Your task to perform on an android device: Turn on the flashlight Image 0: 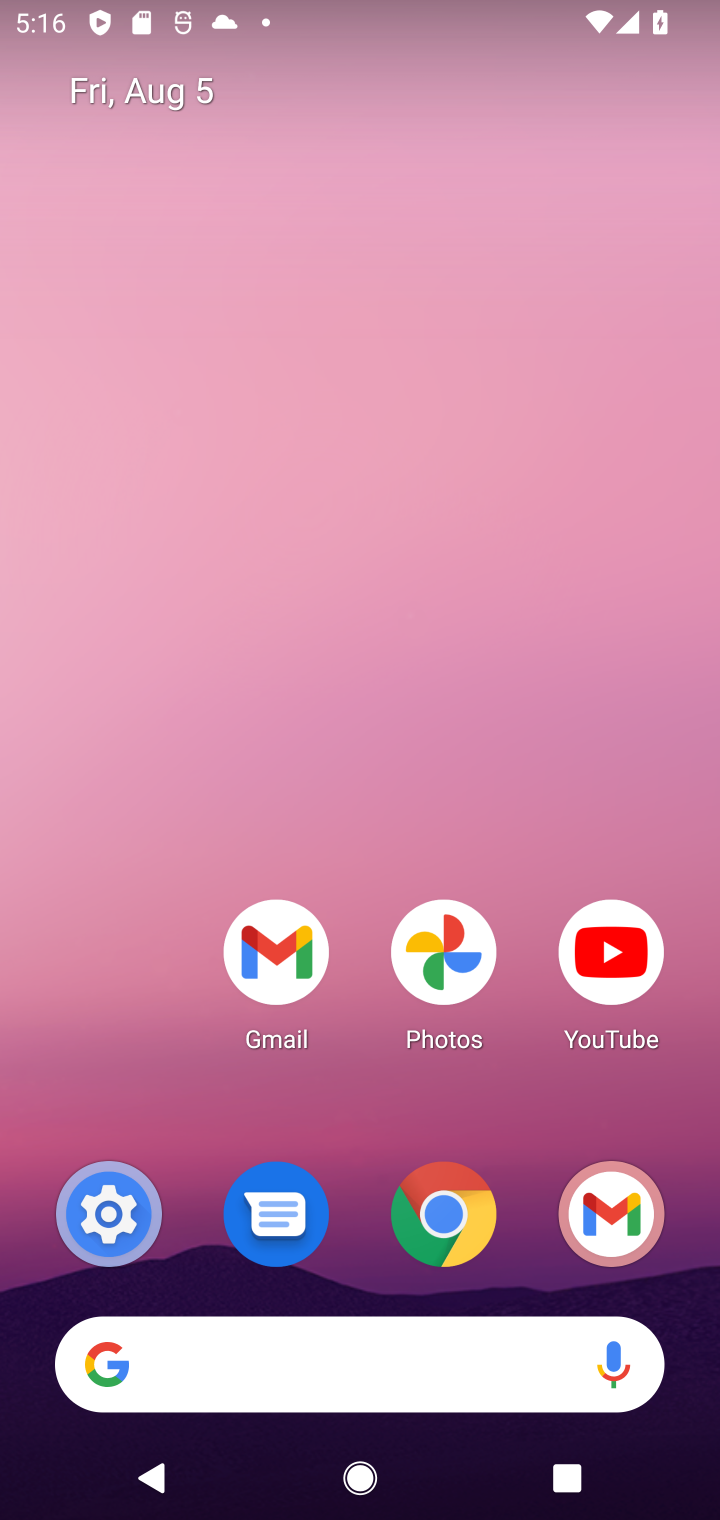
Step 0: click (104, 1220)
Your task to perform on an android device: Turn on the flashlight Image 1: 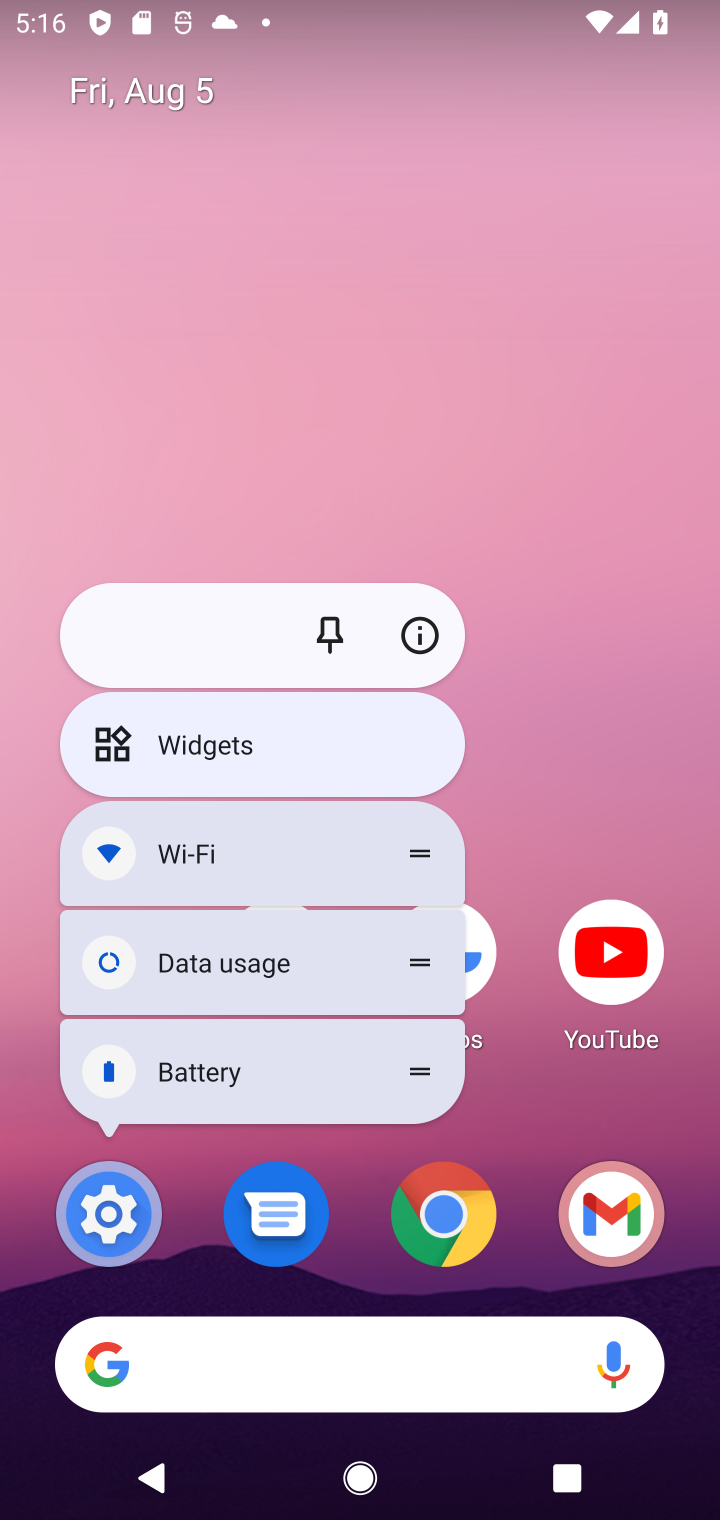
Step 1: click (104, 1220)
Your task to perform on an android device: Turn on the flashlight Image 2: 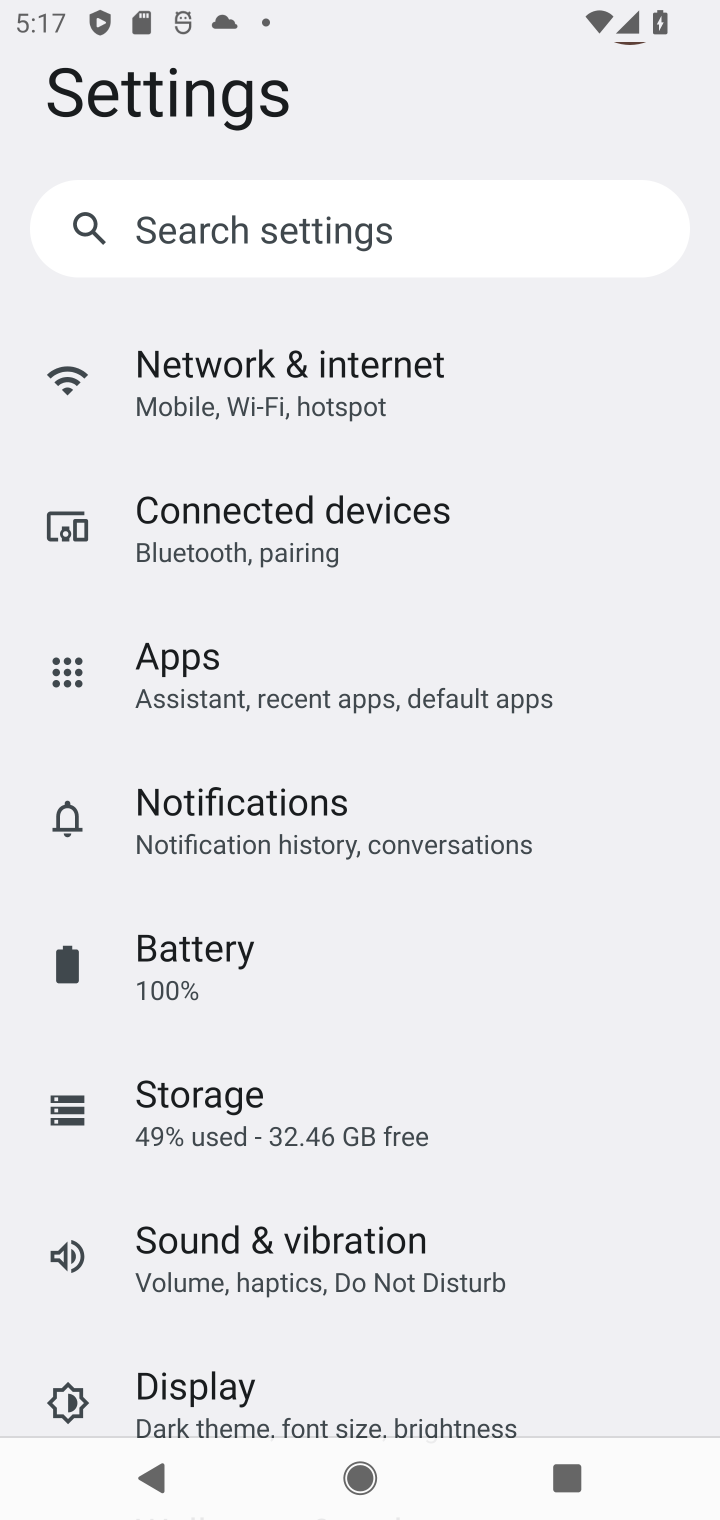
Step 2: click (451, 216)
Your task to perform on an android device: Turn on the flashlight Image 3: 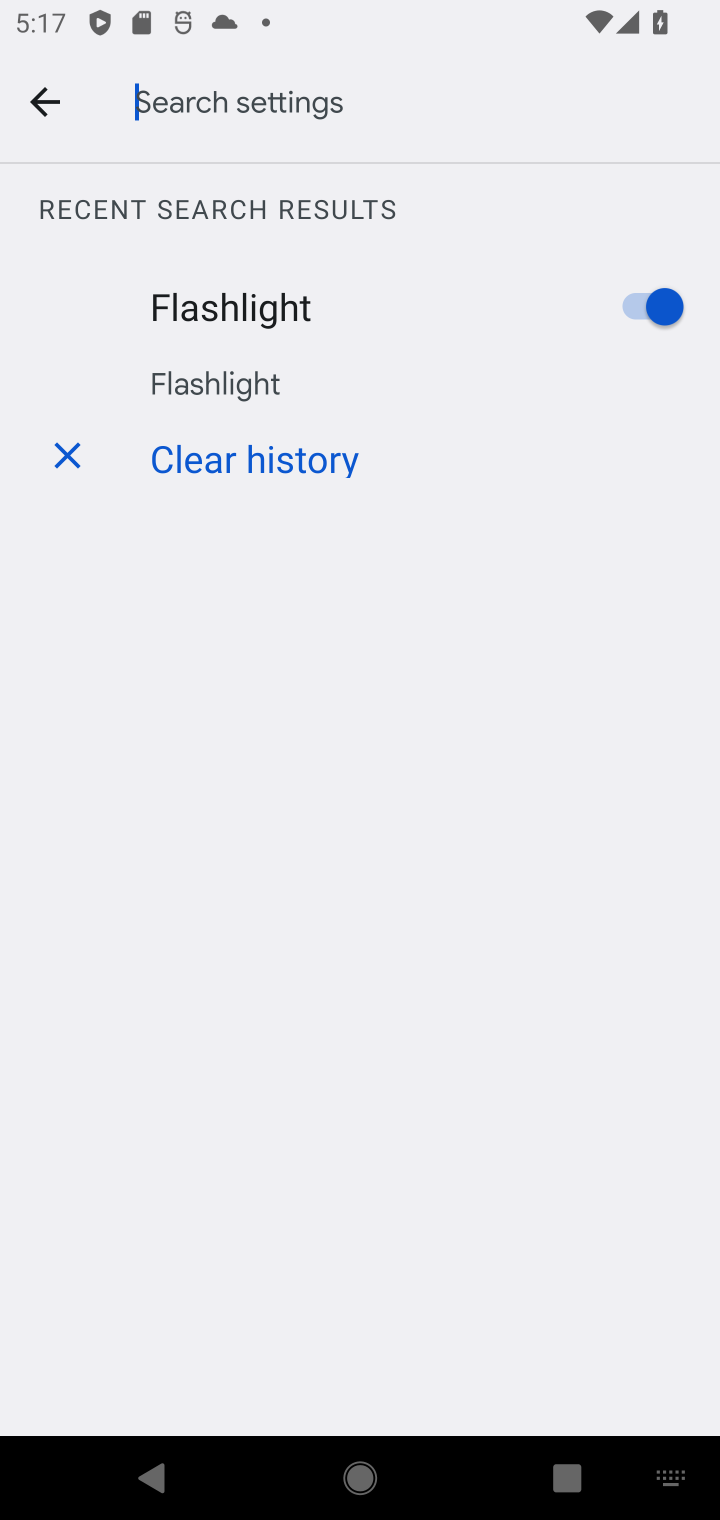
Step 3: task complete